Your task to perform on an android device: see creations saved in the google photos Image 0: 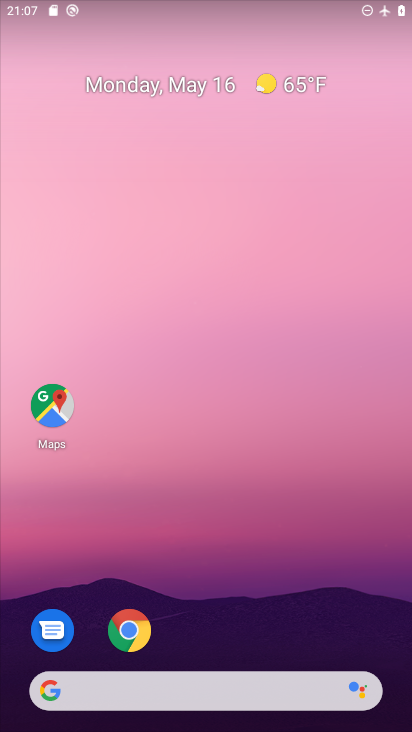
Step 0: drag from (234, 572) to (234, 187)
Your task to perform on an android device: see creations saved in the google photos Image 1: 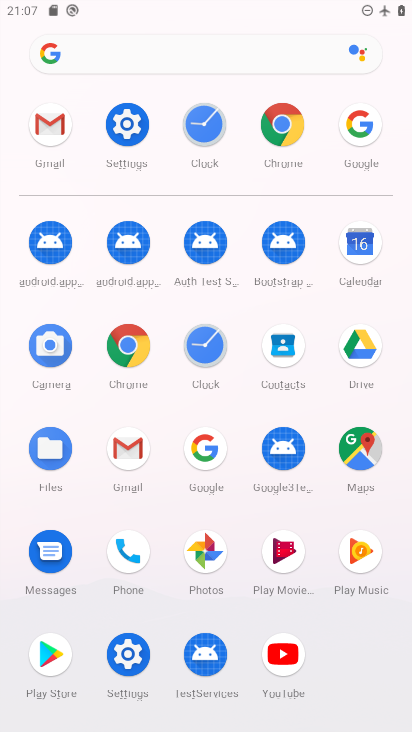
Step 1: click (207, 532)
Your task to perform on an android device: see creations saved in the google photos Image 2: 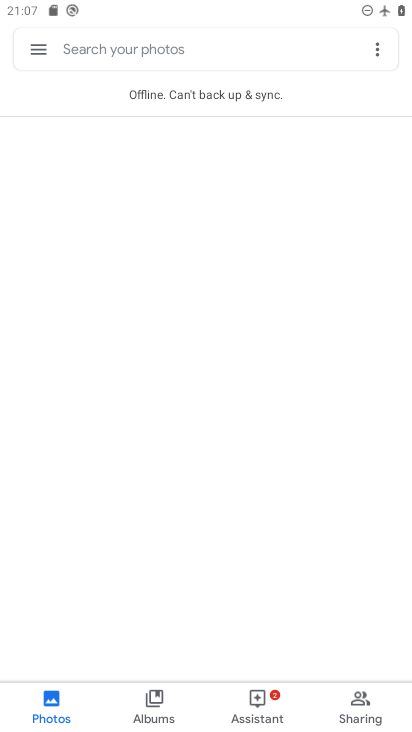
Step 2: click (150, 48)
Your task to perform on an android device: see creations saved in the google photos Image 3: 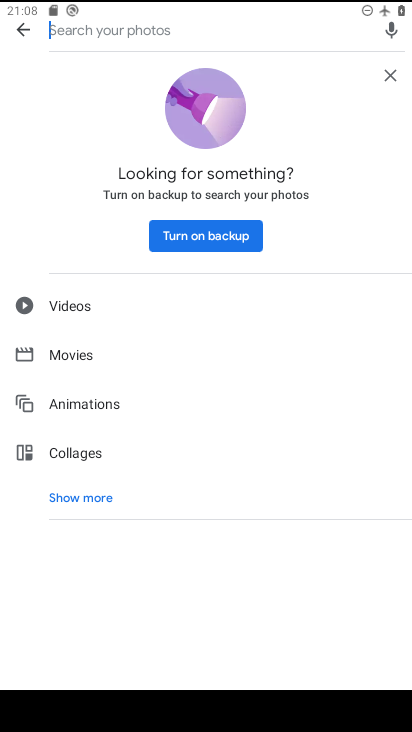
Step 3: click (14, 22)
Your task to perform on an android device: see creations saved in the google photos Image 4: 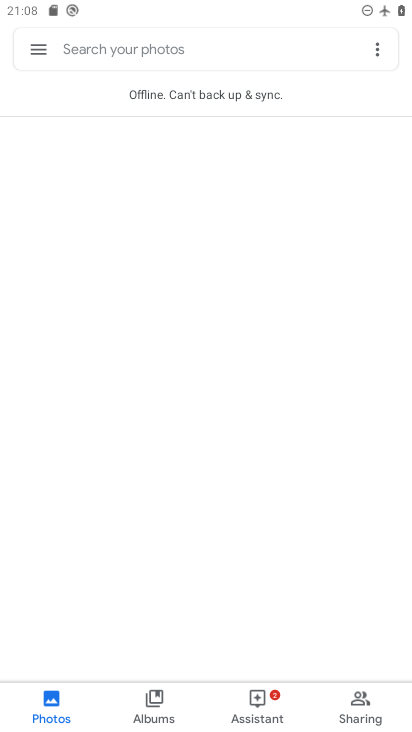
Step 4: click (119, 47)
Your task to perform on an android device: see creations saved in the google photos Image 5: 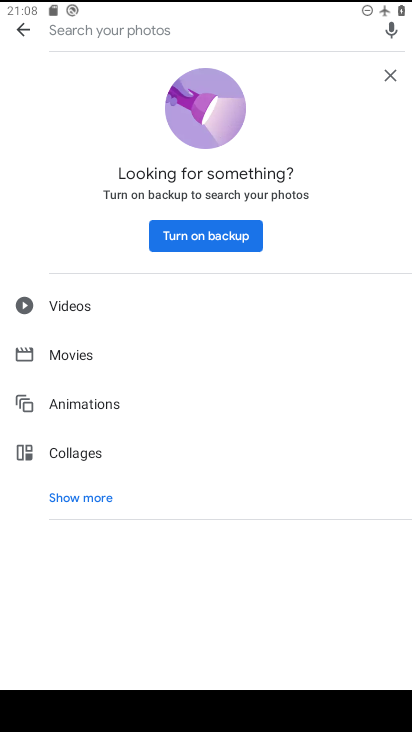
Step 5: click (75, 491)
Your task to perform on an android device: see creations saved in the google photos Image 6: 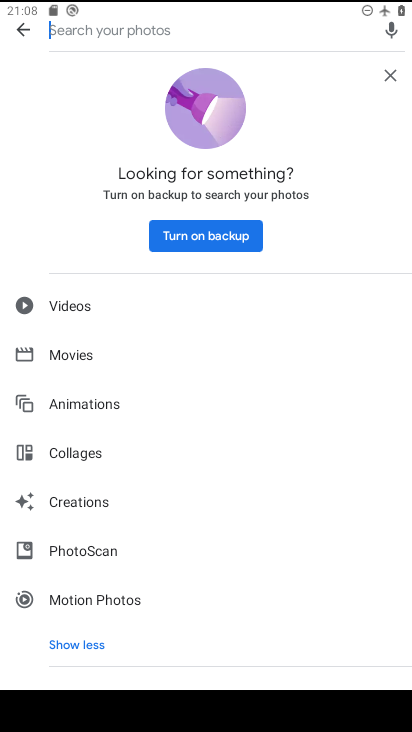
Step 6: click (89, 505)
Your task to perform on an android device: see creations saved in the google photos Image 7: 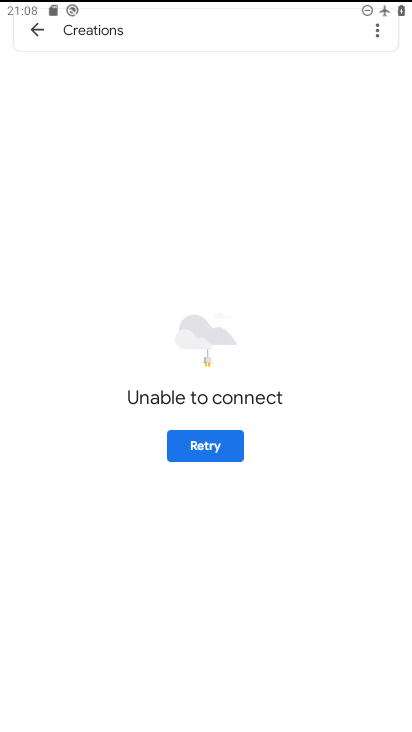
Step 7: task complete